Your task to perform on an android device: What's a good restaurant in San Francisco? Image 0: 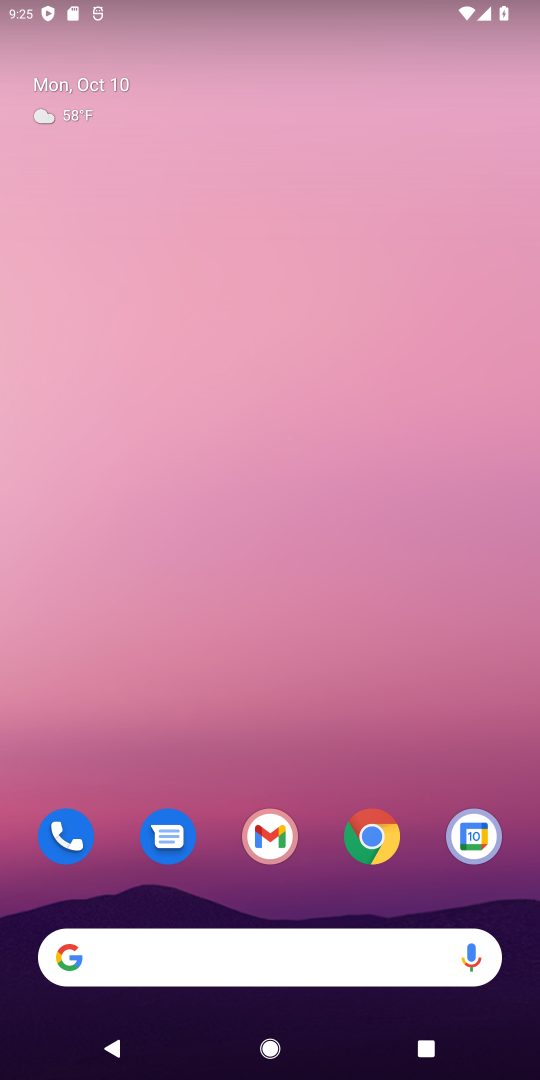
Step 0: drag from (313, 912) to (307, 170)
Your task to perform on an android device: What's a good restaurant in San Francisco? Image 1: 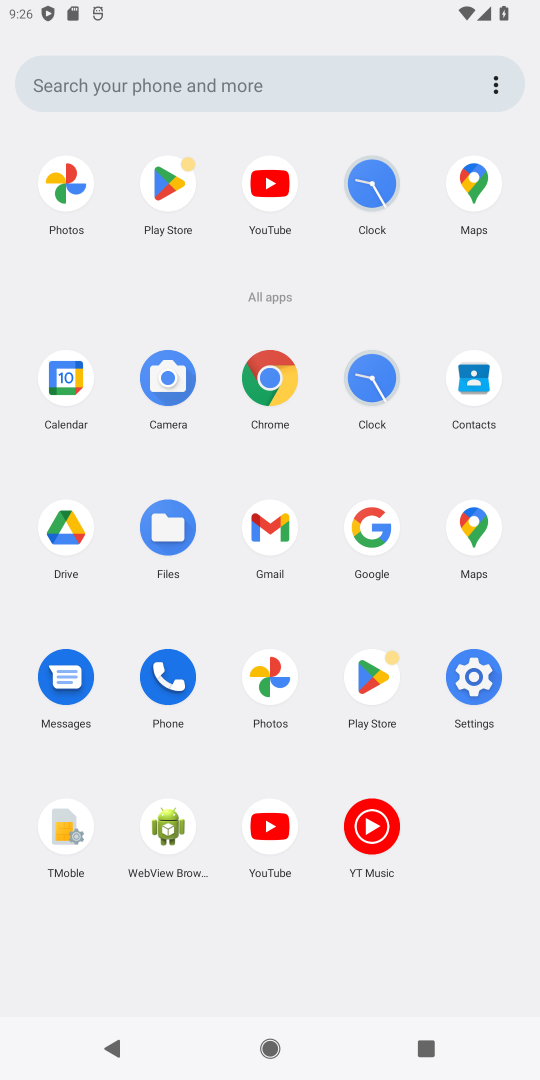
Step 1: click (375, 518)
Your task to perform on an android device: What's a good restaurant in San Francisco? Image 2: 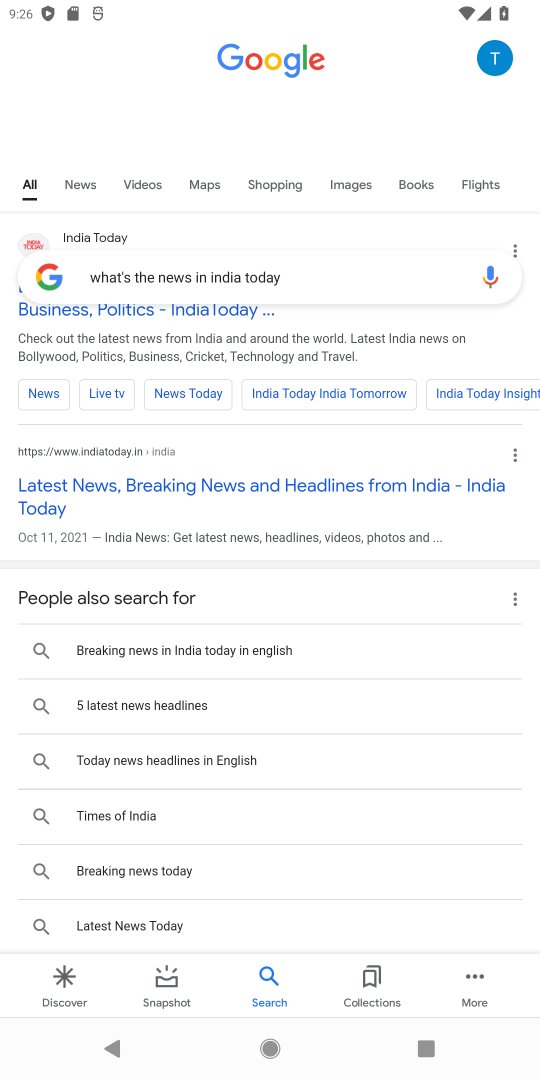
Step 2: click (281, 270)
Your task to perform on an android device: What's a good restaurant in San Francisco? Image 3: 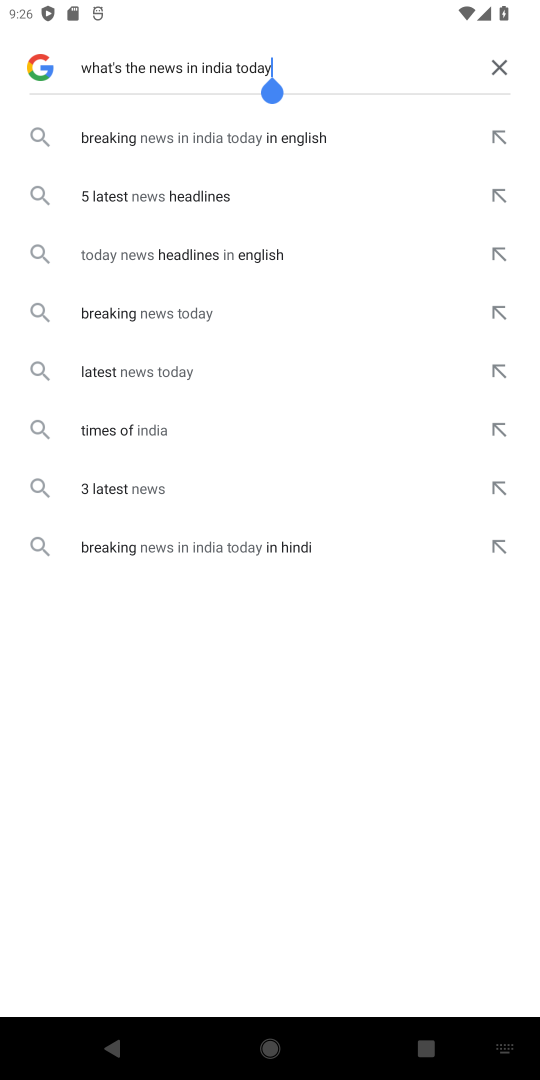
Step 3: click (498, 64)
Your task to perform on an android device: What's a good restaurant in San Francisco? Image 4: 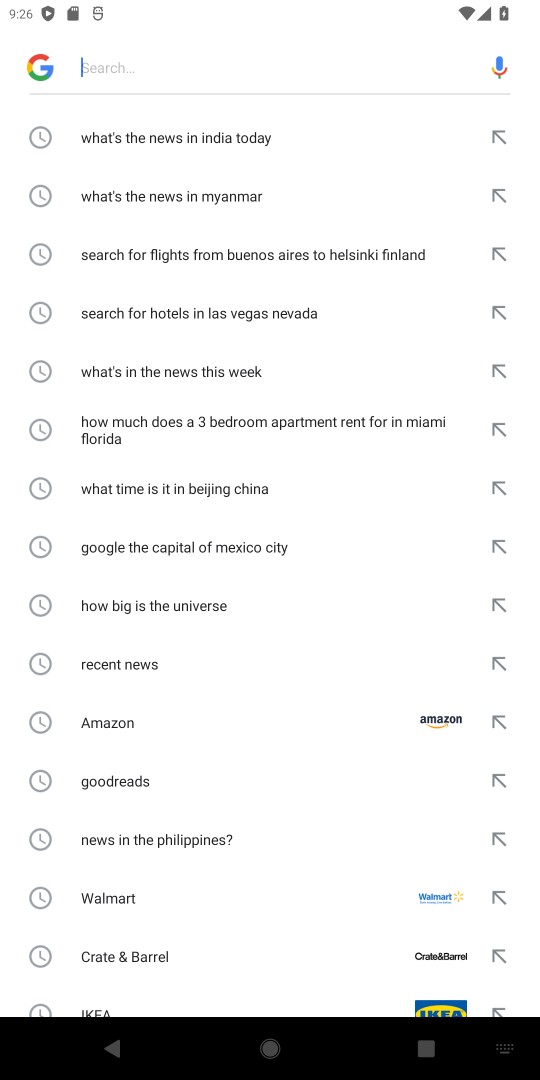
Step 4: type "What's a good restaurant in San Francisco?"
Your task to perform on an android device: What's a good restaurant in San Francisco? Image 5: 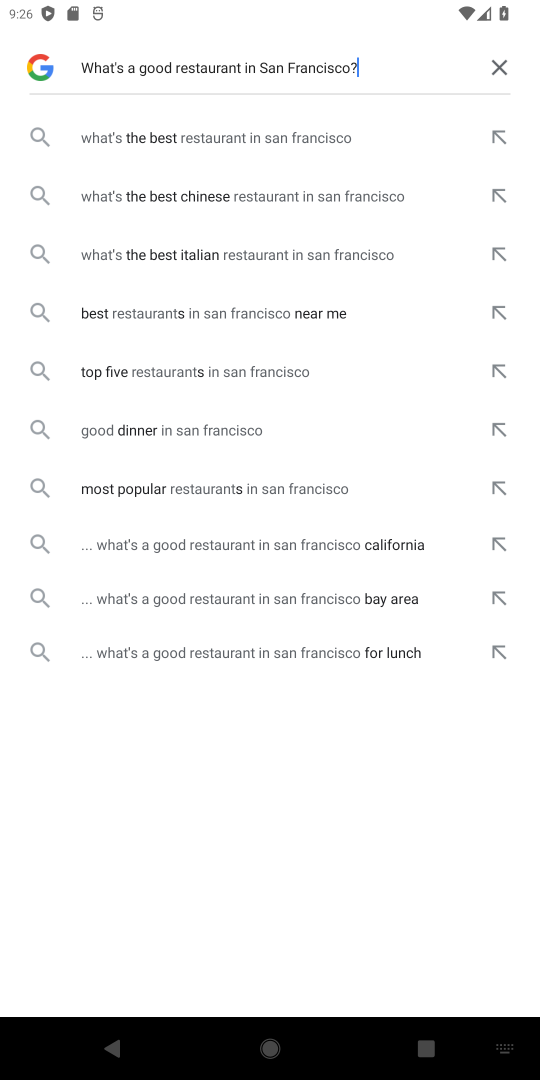
Step 5: click (212, 139)
Your task to perform on an android device: What's a good restaurant in San Francisco? Image 6: 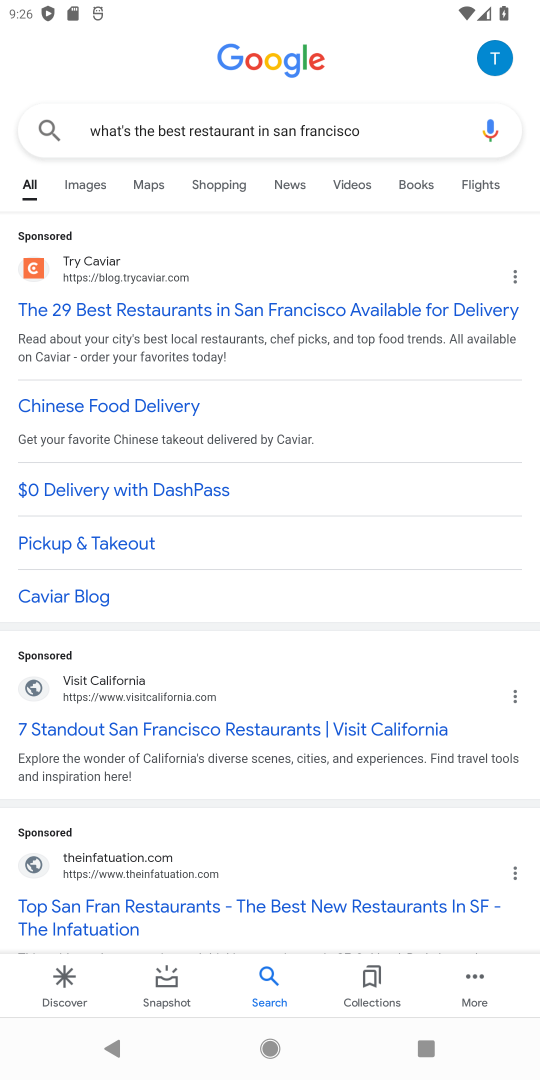
Step 6: click (257, 308)
Your task to perform on an android device: What's a good restaurant in San Francisco? Image 7: 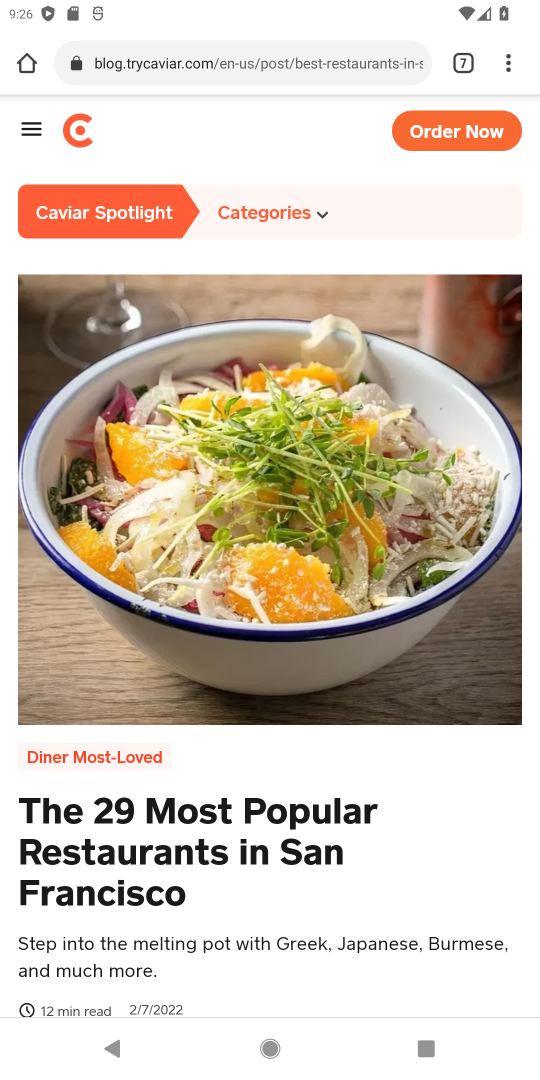
Step 7: task complete